Your task to perform on an android device: turn off notifications in google photos Image 0: 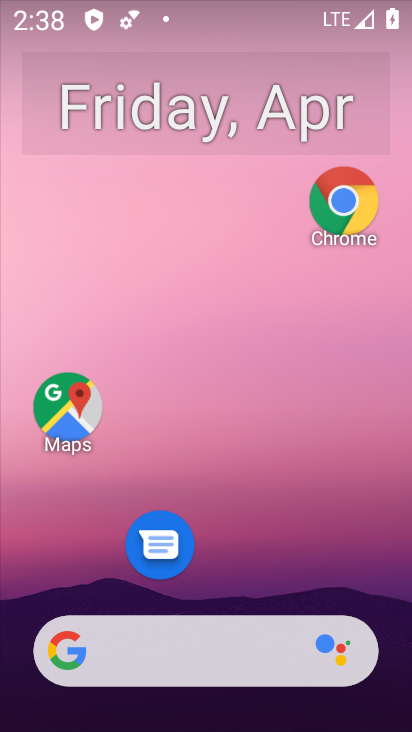
Step 0: drag from (230, 553) to (329, 91)
Your task to perform on an android device: turn off notifications in google photos Image 1: 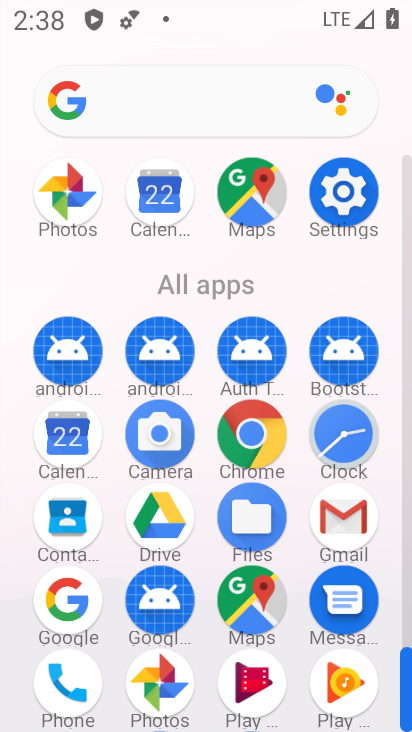
Step 1: click (166, 696)
Your task to perform on an android device: turn off notifications in google photos Image 2: 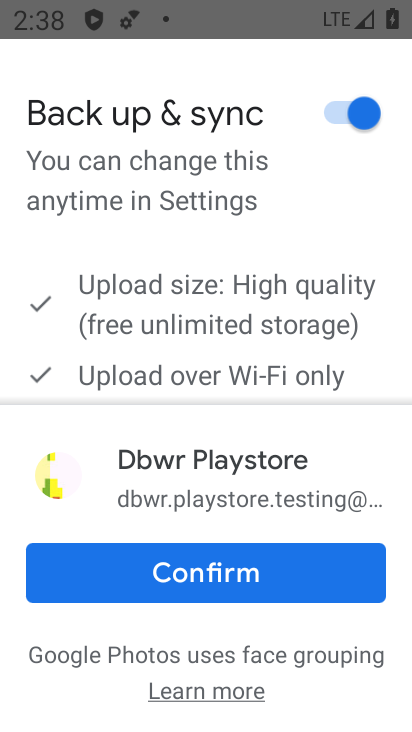
Step 2: click (211, 581)
Your task to perform on an android device: turn off notifications in google photos Image 3: 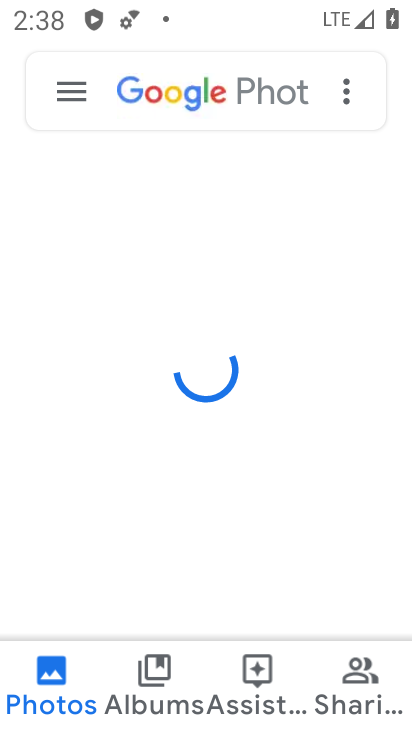
Step 3: click (60, 97)
Your task to perform on an android device: turn off notifications in google photos Image 4: 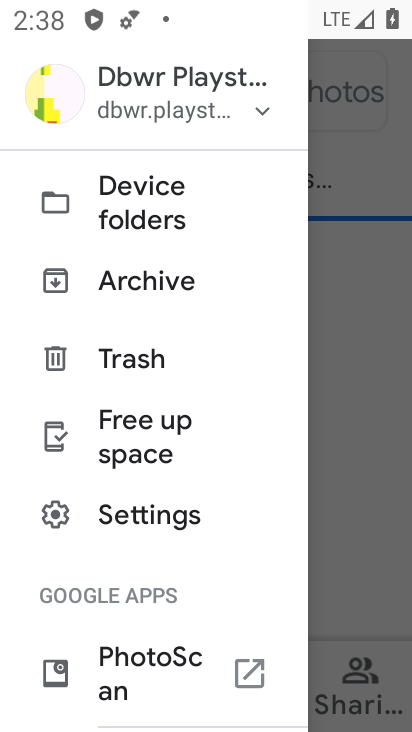
Step 4: click (136, 502)
Your task to perform on an android device: turn off notifications in google photos Image 5: 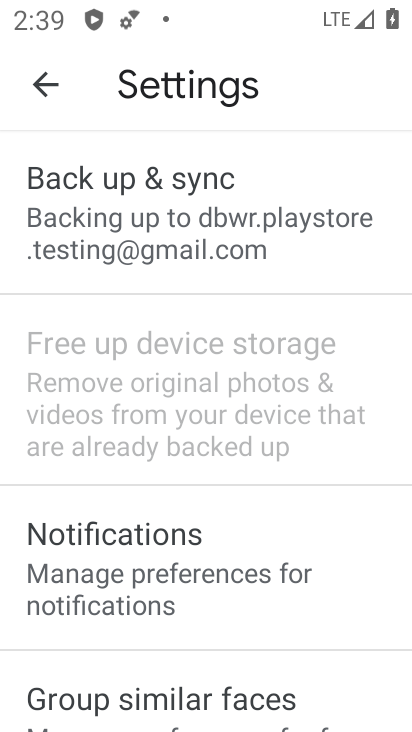
Step 5: click (110, 560)
Your task to perform on an android device: turn off notifications in google photos Image 6: 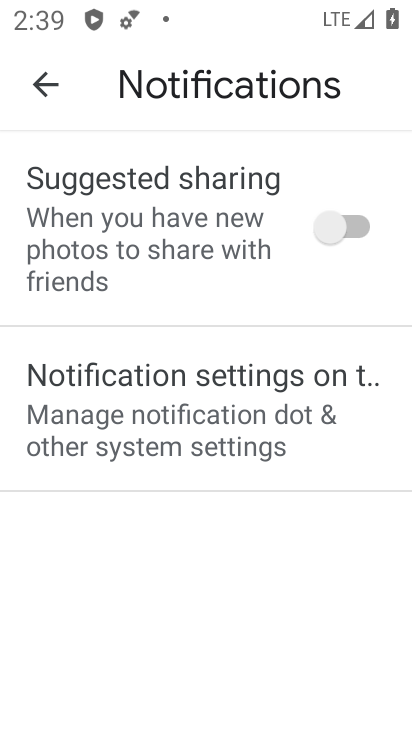
Step 6: click (144, 438)
Your task to perform on an android device: turn off notifications in google photos Image 7: 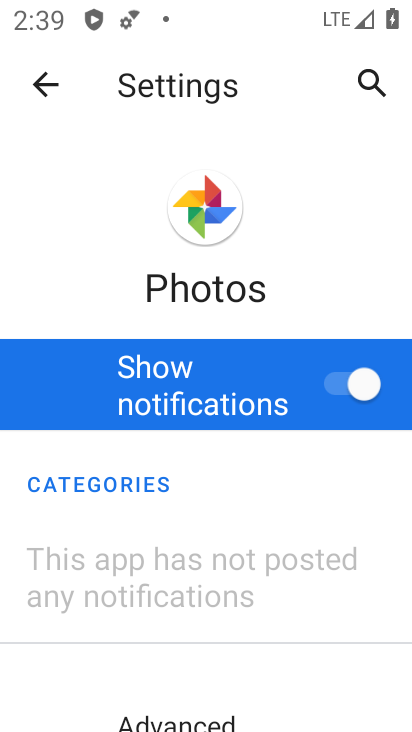
Step 7: click (298, 389)
Your task to perform on an android device: turn off notifications in google photos Image 8: 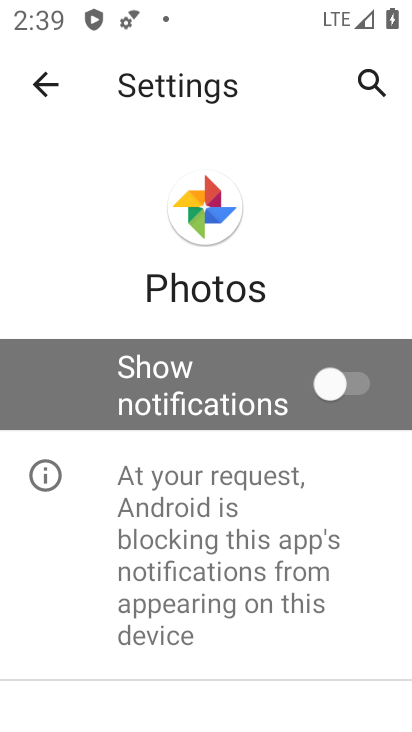
Step 8: task complete